Your task to perform on an android device: toggle translation in the chrome app Image 0: 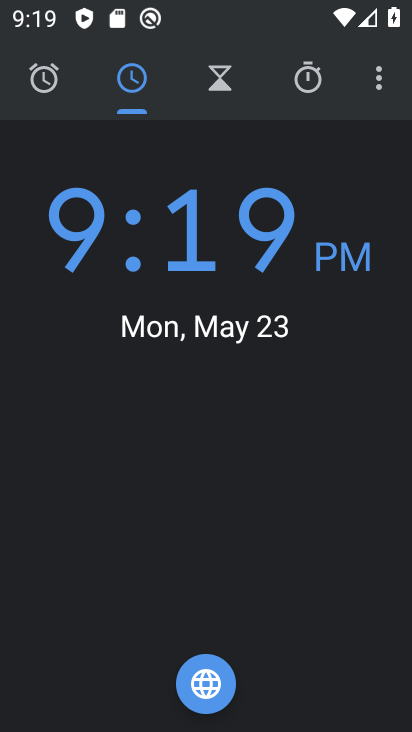
Step 0: press home button
Your task to perform on an android device: toggle translation in the chrome app Image 1: 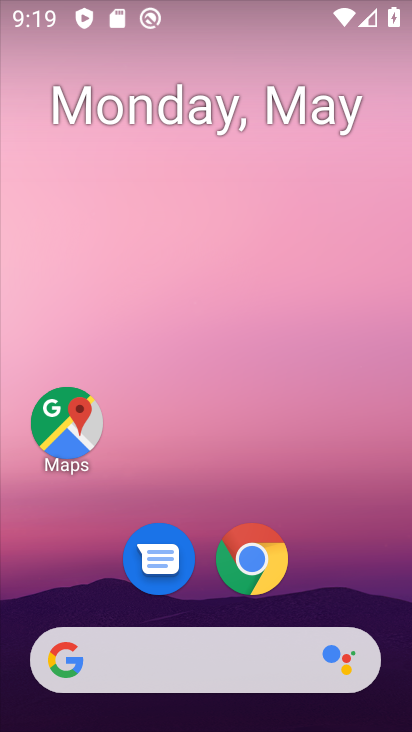
Step 1: click (239, 555)
Your task to perform on an android device: toggle translation in the chrome app Image 2: 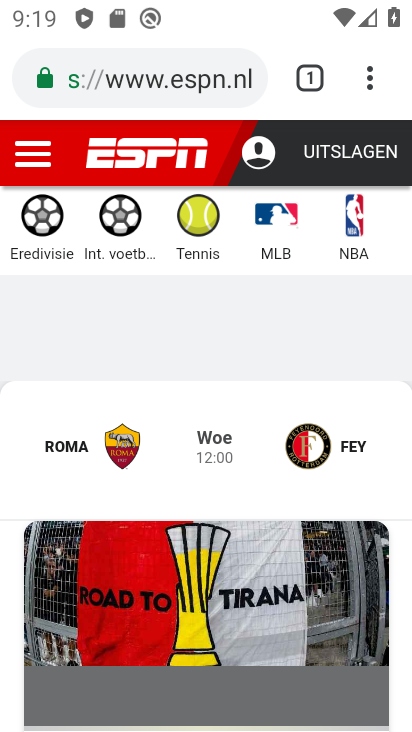
Step 2: drag from (366, 75) to (214, 590)
Your task to perform on an android device: toggle translation in the chrome app Image 3: 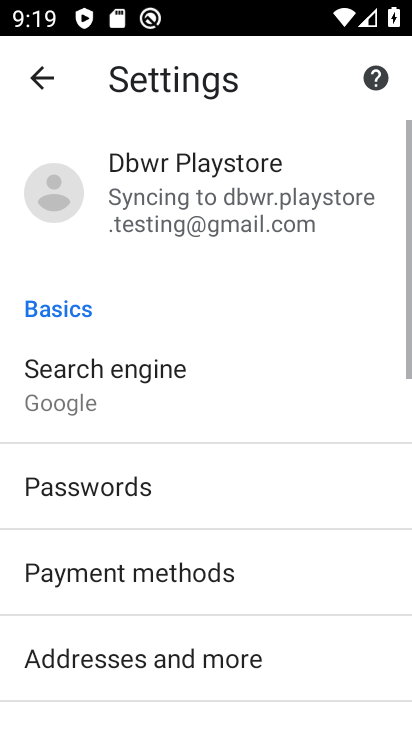
Step 3: drag from (212, 701) to (293, 141)
Your task to perform on an android device: toggle translation in the chrome app Image 4: 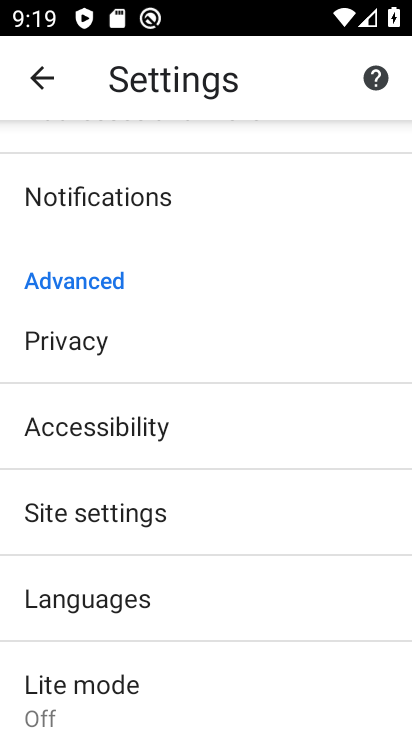
Step 4: click (179, 614)
Your task to perform on an android device: toggle translation in the chrome app Image 5: 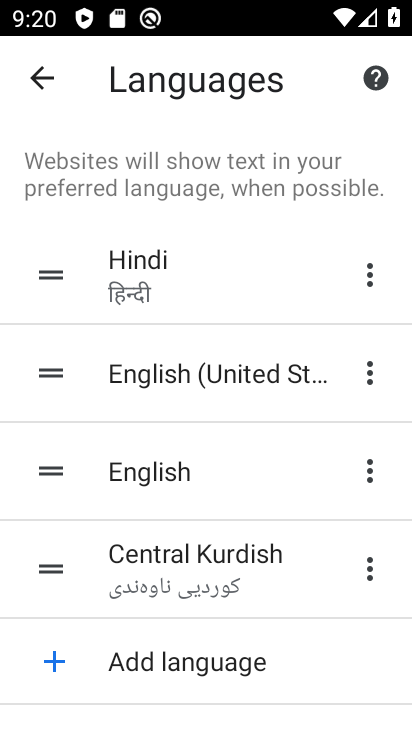
Step 5: drag from (227, 682) to (282, 226)
Your task to perform on an android device: toggle translation in the chrome app Image 6: 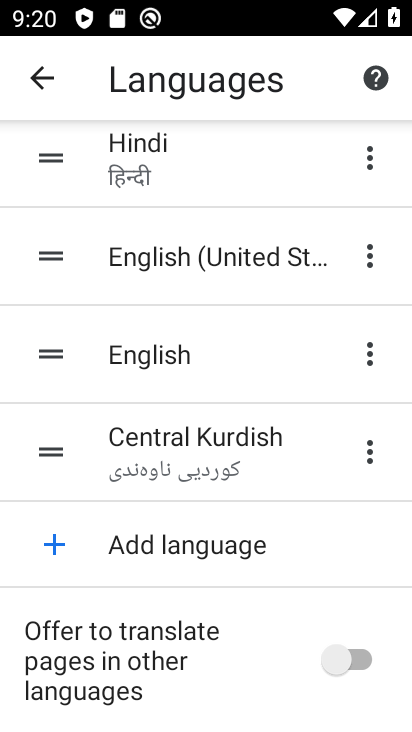
Step 6: click (374, 654)
Your task to perform on an android device: toggle translation in the chrome app Image 7: 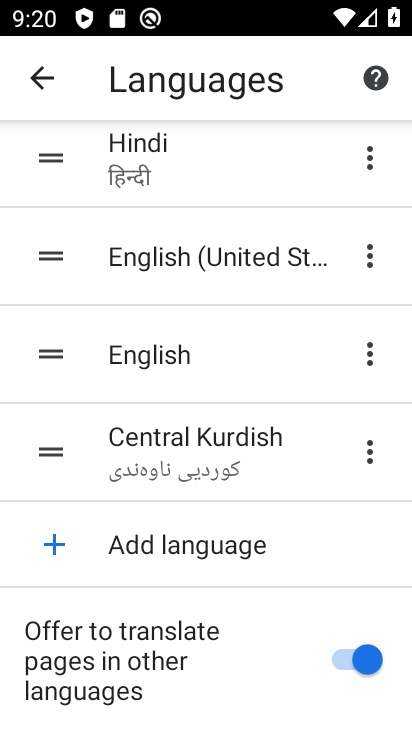
Step 7: task complete